Your task to perform on an android device: Go to notification settings Image 0: 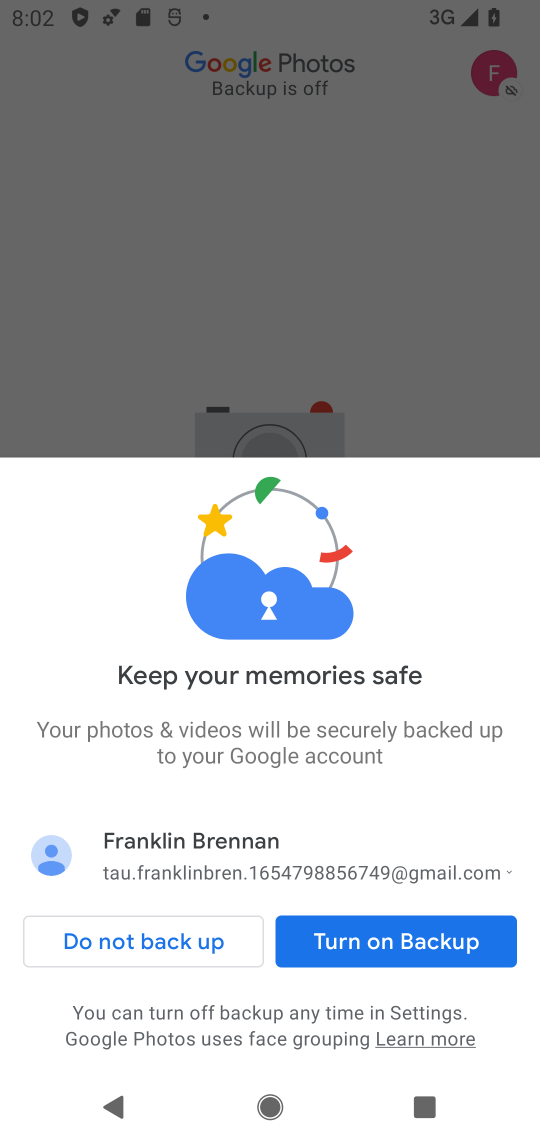
Step 0: press home button
Your task to perform on an android device: Go to notification settings Image 1: 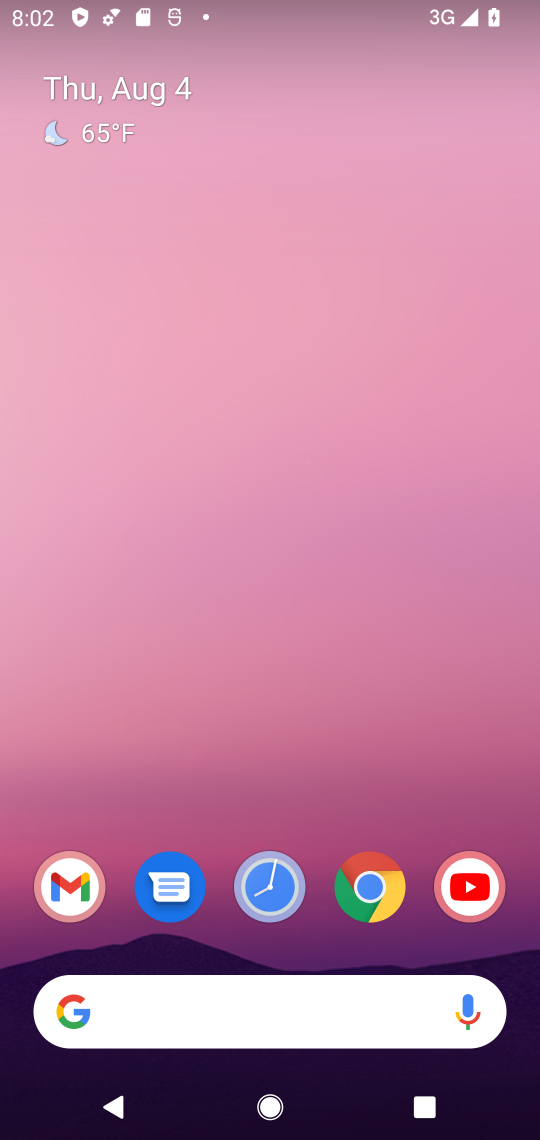
Step 1: drag from (291, 904) to (248, 462)
Your task to perform on an android device: Go to notification settings Image 2: 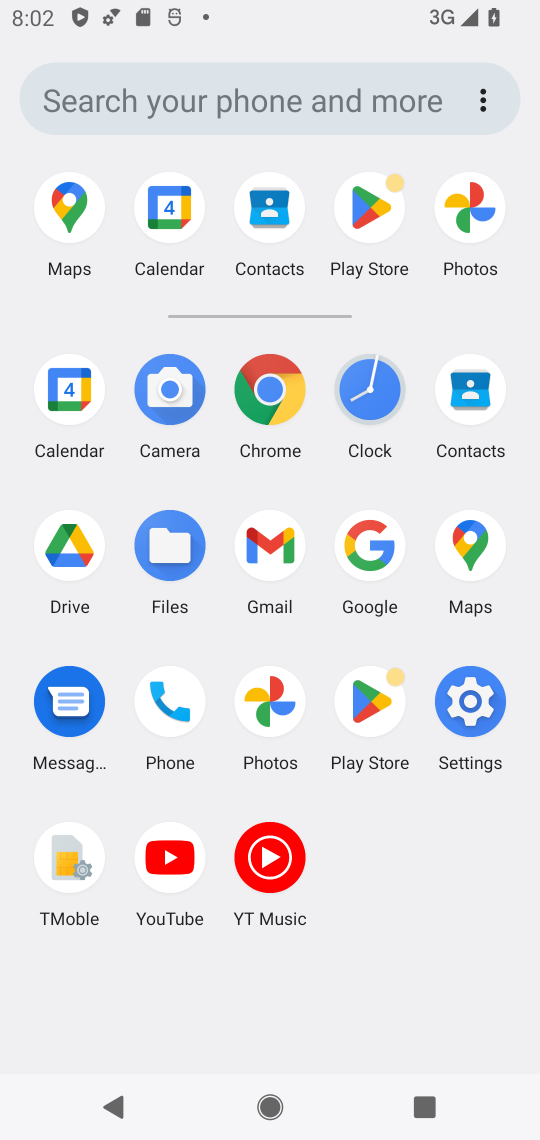
Step 2: click (490, 701)
Your task to perform on an android device: Go to notification settings Image 3: 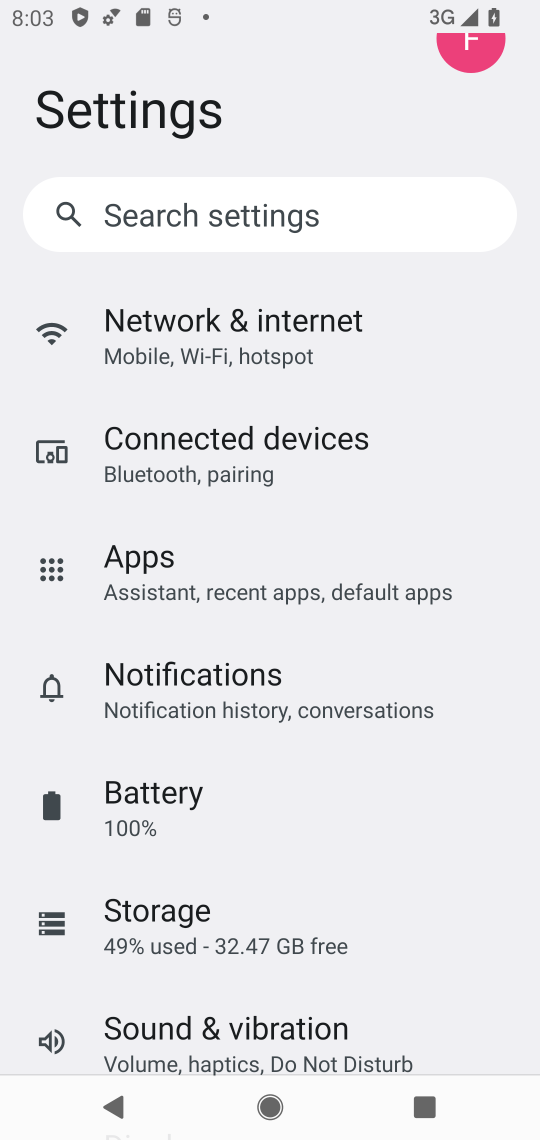
Step 3: click (235, 682)
Your task to perform on an android device: Go to notification settings Image 4: 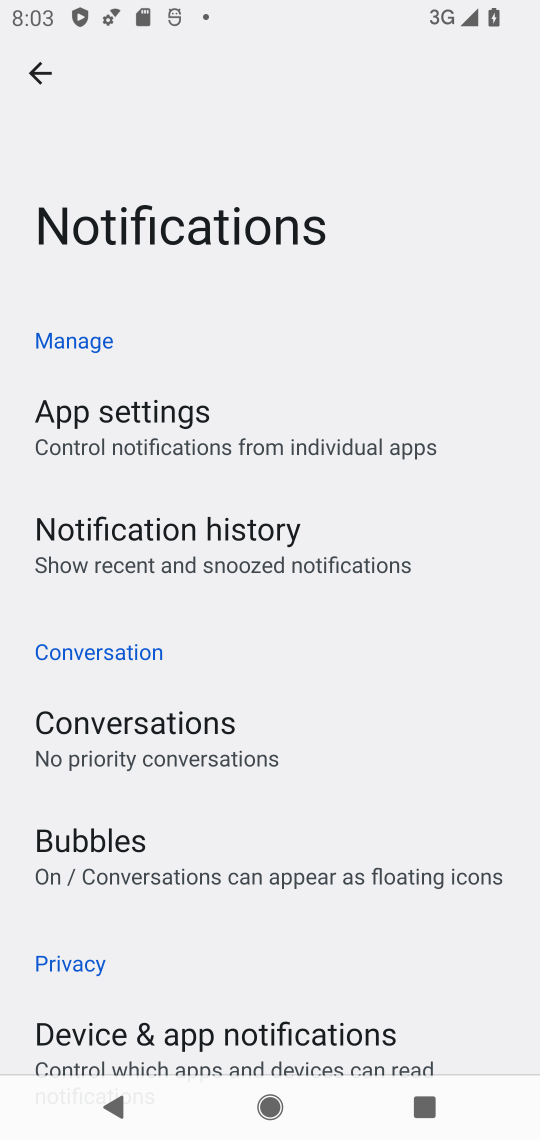
Step 4: task complete